Your task to perform on an android device: Open Chrome and go to the settings page Image 0: 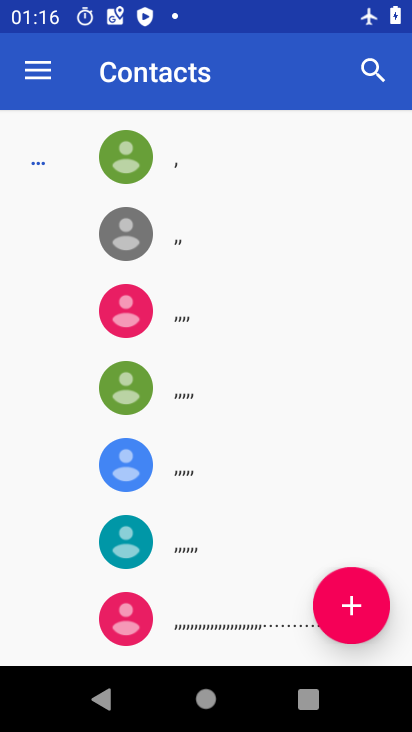
Step 0: press home button
Your task to perform on an android device: Open Chrome and go to the settings page Image 1: 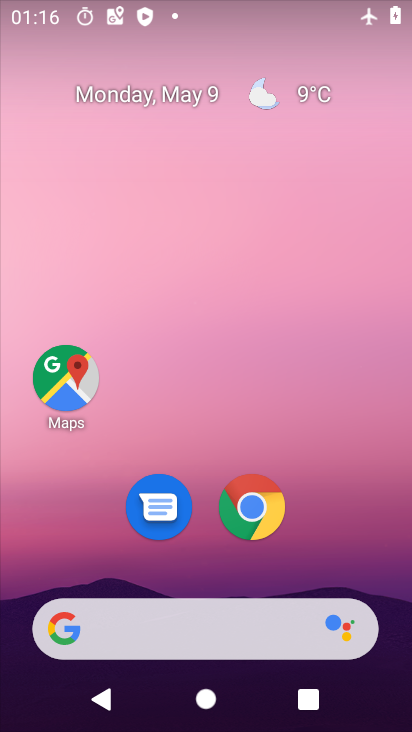
Step 1: click (257, 507)
Your task to perform on an android device: Open Chrome and go to the settings page Image 2: 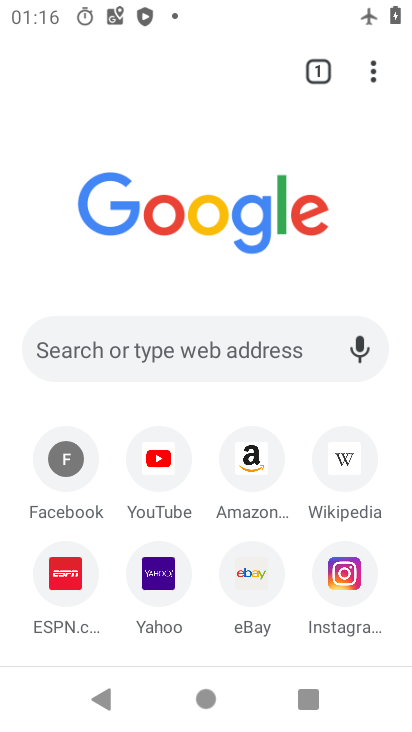
Step 2: click (371, 79)
Your task to perform on an android device: Open Chrome and go to the settings page Image 3: 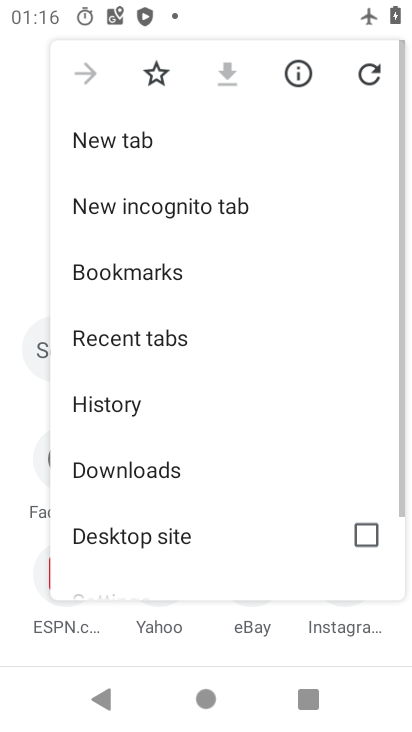
Step 3: drag from (136, 526) to (163, 231)
Your task to perform on an android device: Open Chrome and go to the settings page Image 4: 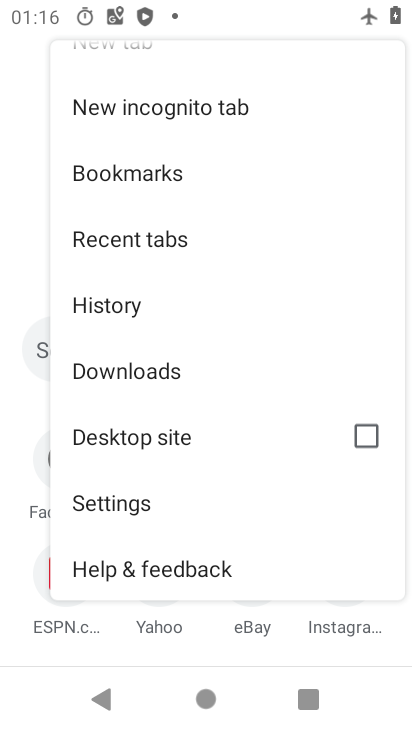
Step 4: click (121, 508)
Your task to perform on an android device: Open Chrome and go to the settings page Image 5: 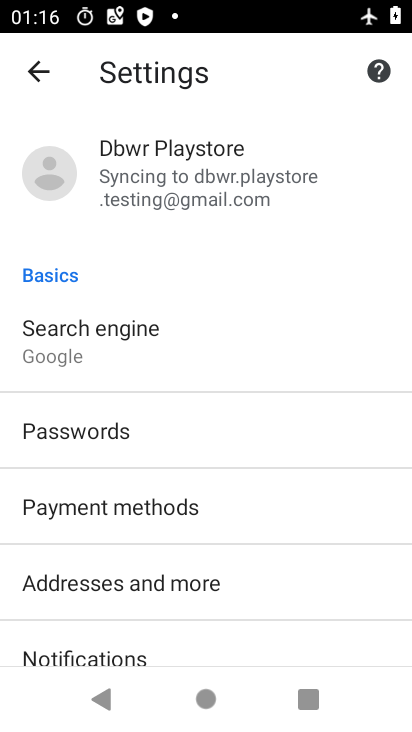
Step 5: task complete